Your task to perform on an android device: When is my next meeting? Image 0: 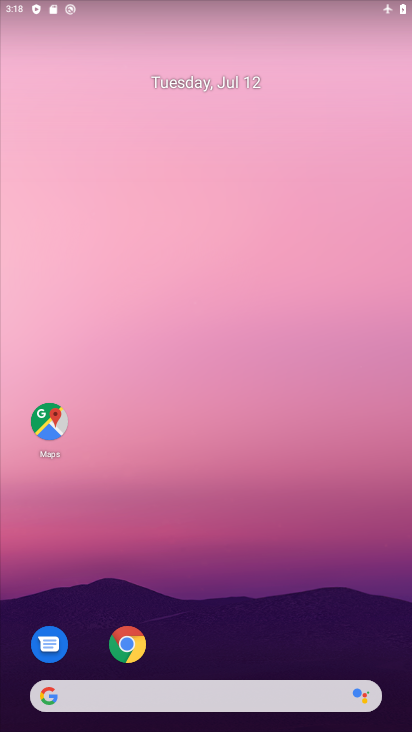
Step 0: drag from (258, 496) to (253, 108)
Your task to perform on an android device: When is my next meeting? Image 1: 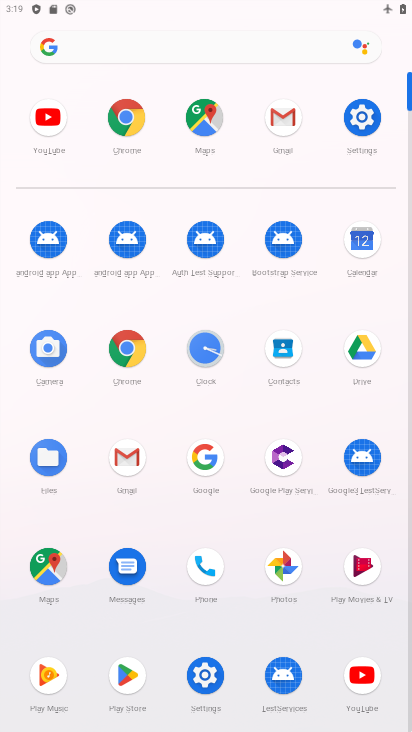
Step 1: click (357, 243)
Your task to perform on an android device: When is my next meeting? Image 2: 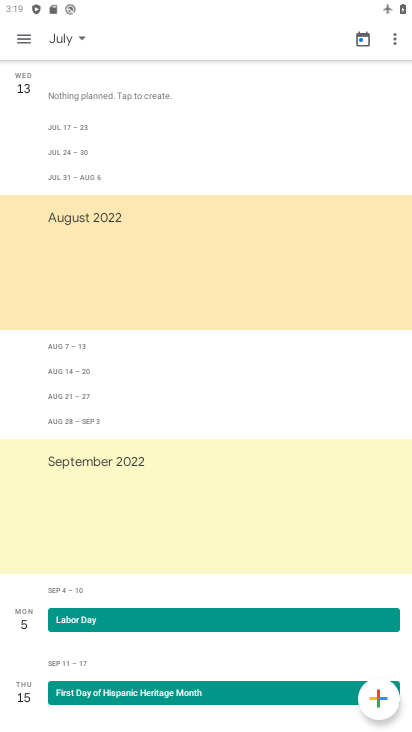
Step 2: click (26, 36)
Your task to perform on an android device: When is my next meeting? Image 3: 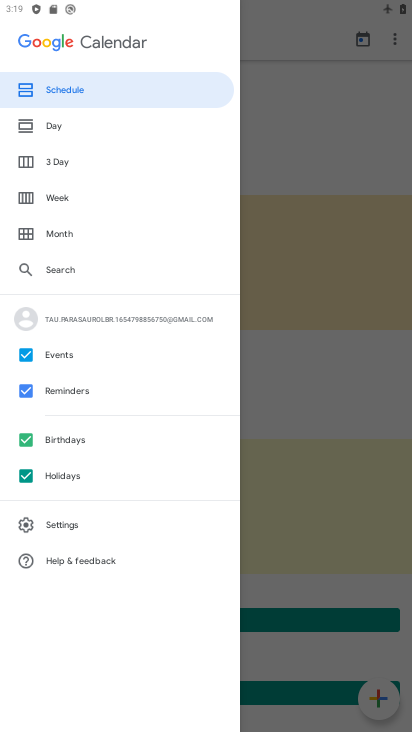
Step 3: click (61, 199)
Your task to perform on an android device: When is my next meeting? Image 4: 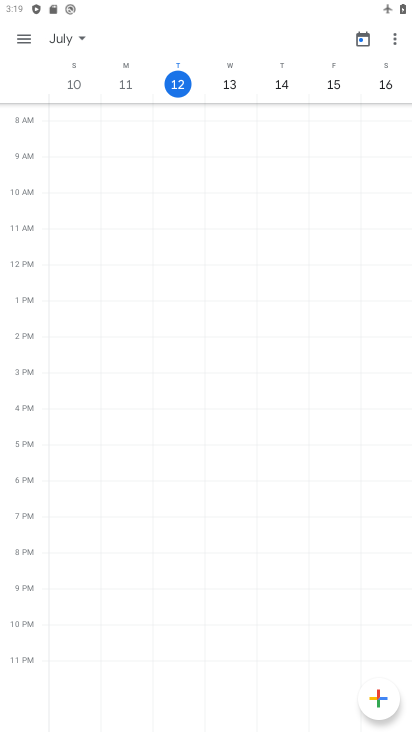
Step 4: task complete